Your task to perform on an android device: Open notification settings Image 0: 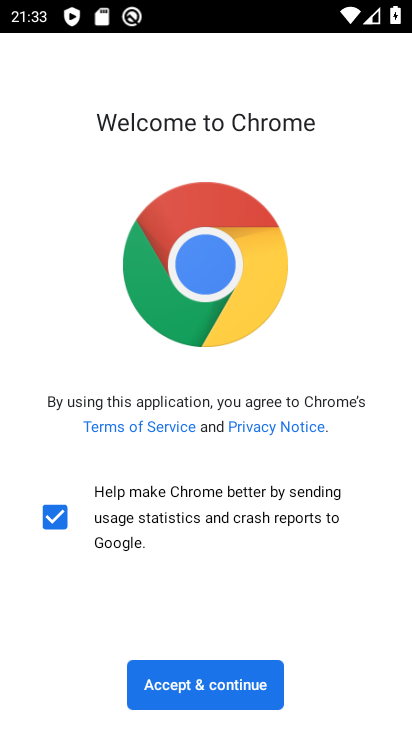
Step 0: press home button
Your task to perform on an android device: Open notification settings Image 1: 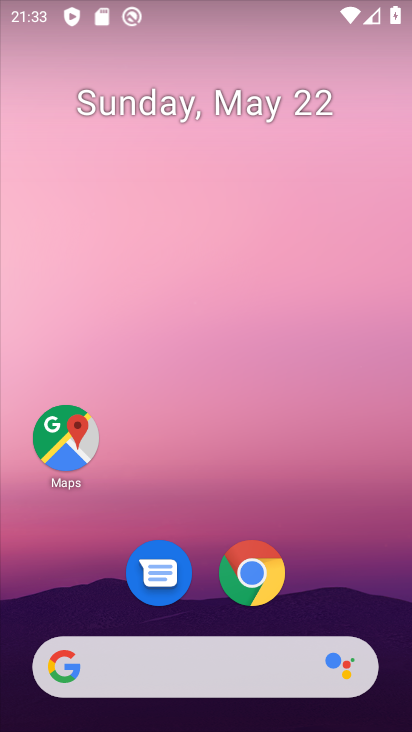
Step 1: drag from (381, 605) to (296, 87)
Your task to perform on an android device: Open notification settings Image 2: 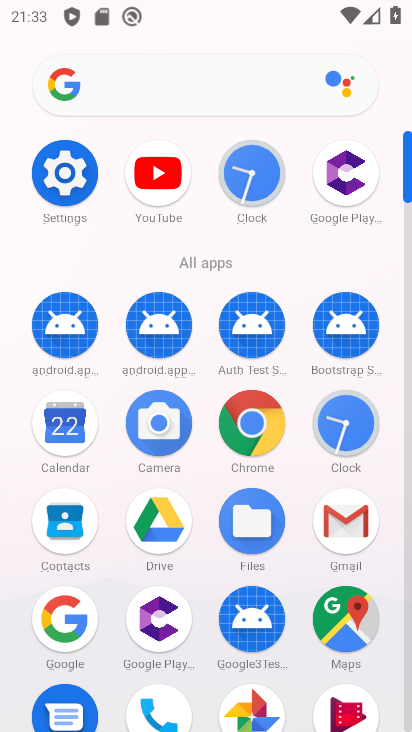
Step 2: click (68, 182)
Your task to perform on an android device: Open notification settings Image 3: 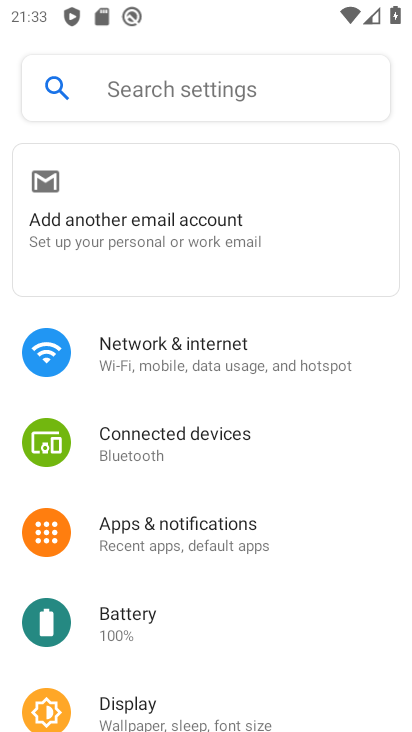
Step 3: drag from (157, 652) to (195, 248)
Your task to perform on an android device: Open notification settings Image 4: 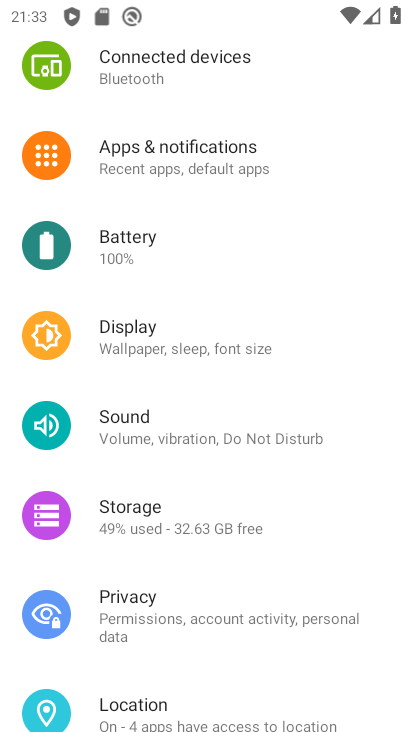
Step 4: drag from (231, 548) to (184, 665)
Your task to perform on an android device: Open notification settings Image 5: 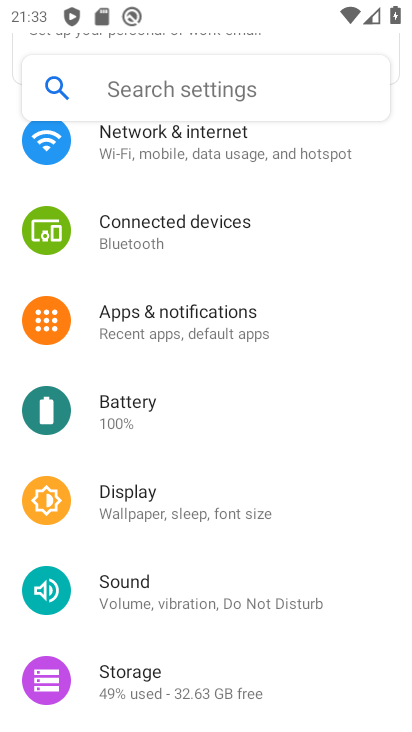
Step 5: click (185, 336)
Your task to perform on an android device: Open notification settings Image 6: 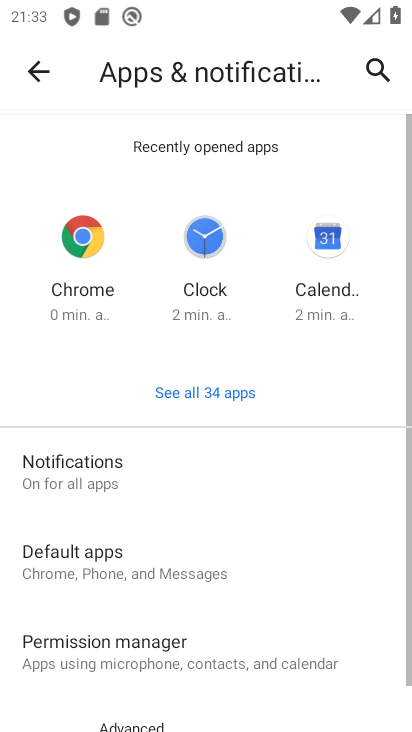
Step 6: task complete